Your task to perform on an android device: What's the weather going to be this weekend? Image 0: 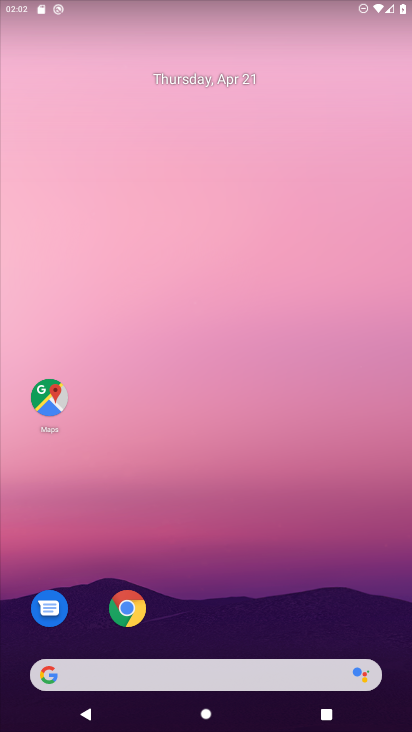
Step 0: drag from (219, 411) to (213, 207)
Your task to perform on an android device: What's the weather going to be this weekend? Image 1: 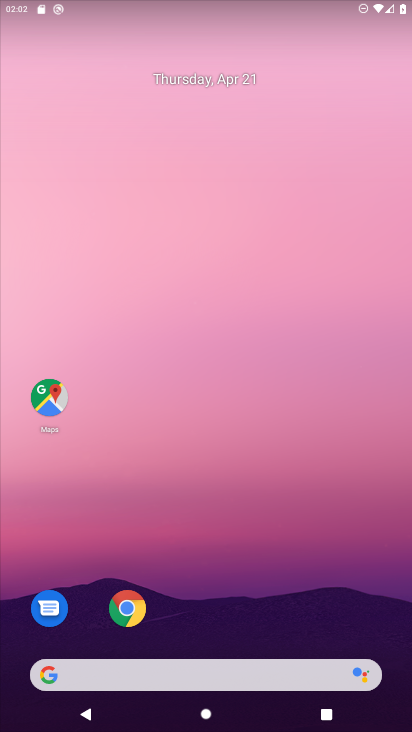
Step 1: drag from (254, 519) to (266, 355)
Your task to perform on an android device: What's the weather going to be this weekend? Image 2: 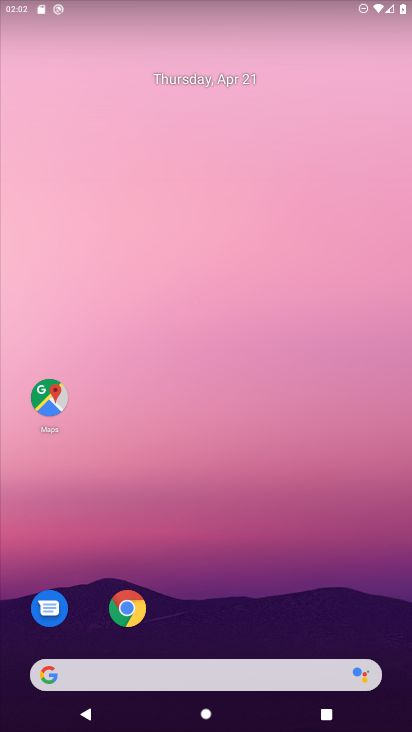
Step 2: drag from (217, 609) to (277, 230)
Your task to perform on an android device: What's the weather going to be this weekend? Image 3: 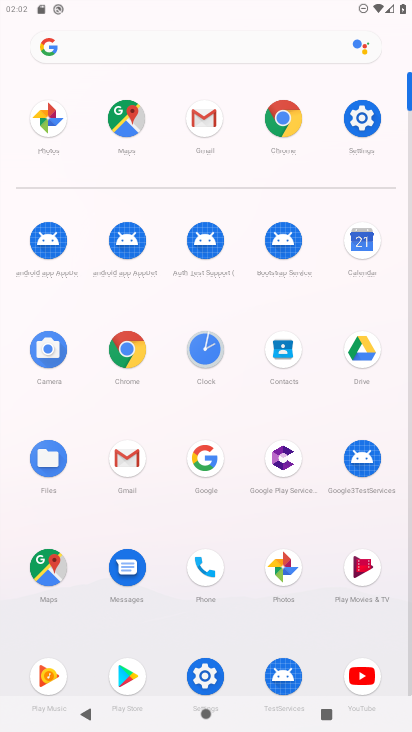
Step 3: click (123, 350)
Your task to perform on an android device: What's the weather going to be this weekend? Image 4: 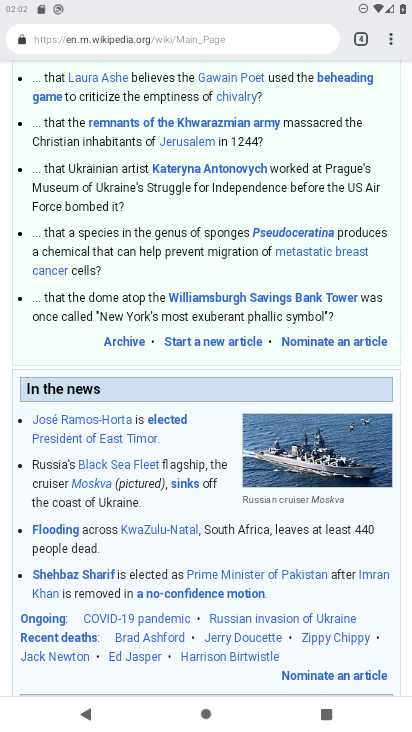
Step 4: click (388, 33)
Your task to perform on an android device: What's the weather going to be this weekend? Image 5: 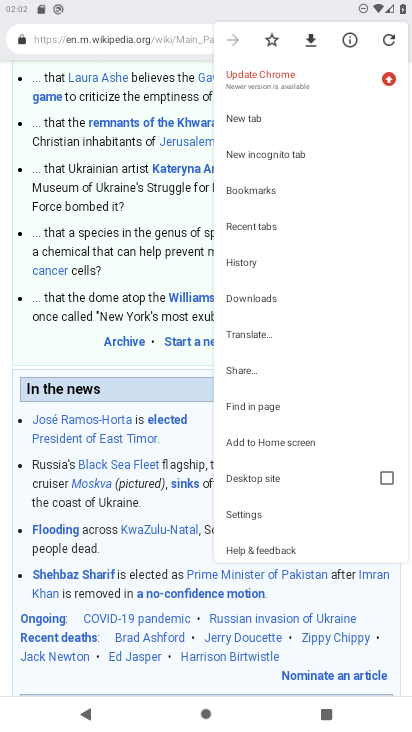
Step 5: click (270, 115)
Your task to perform on an android device: What's the weather going to be this weekend? Image 6: 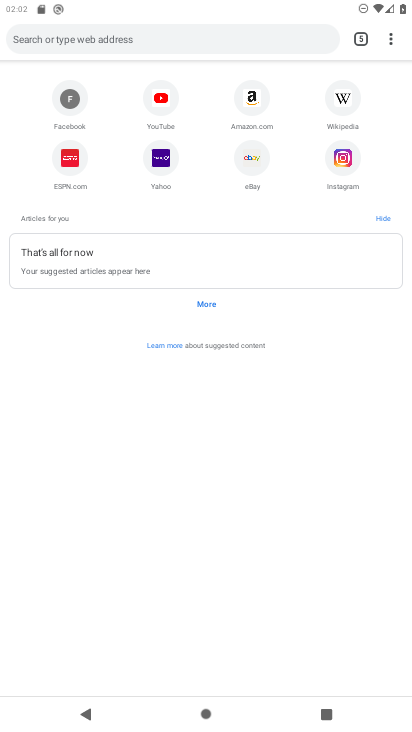
Step 6: click (240, 36)
Your task to perform on an android device: What's the weather going to be this weekend? Image 7: 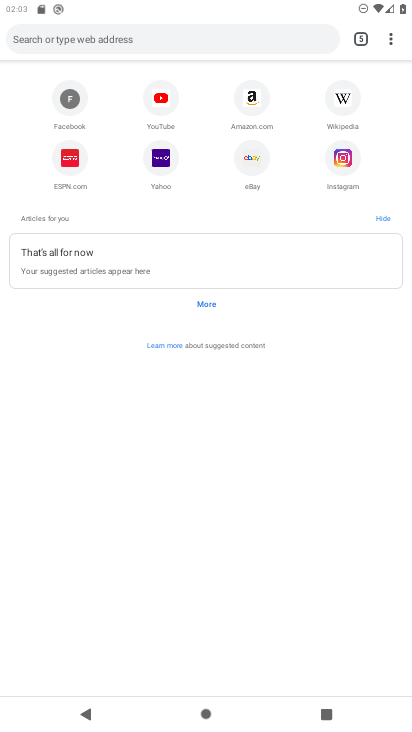
Step 7: type "What's the weather going to be this weekend?"
Your task to perform on an android device: What's the weather going to be this weekend? Image 8: 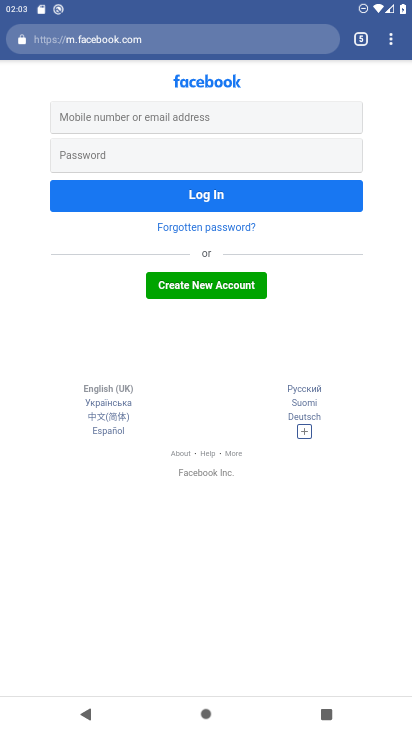
Step 8: click (390, 34)
Your task to perform on an android device: What's the weather going to be this weekend? Image 9: 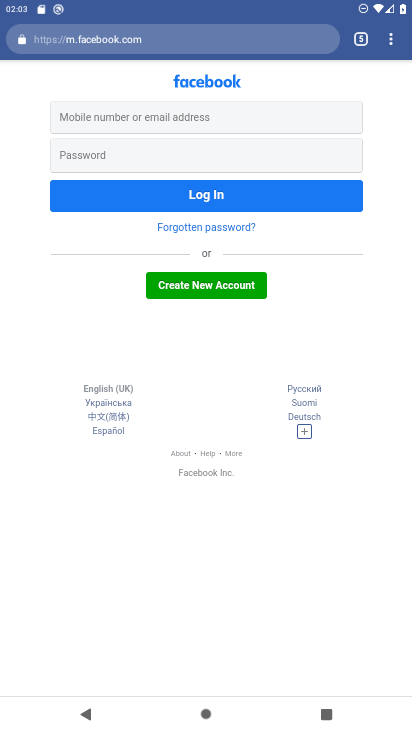
Step 9: click (383, 35)
Your task to perform on an android device: What's the weather going to be this weekend? Image 10: 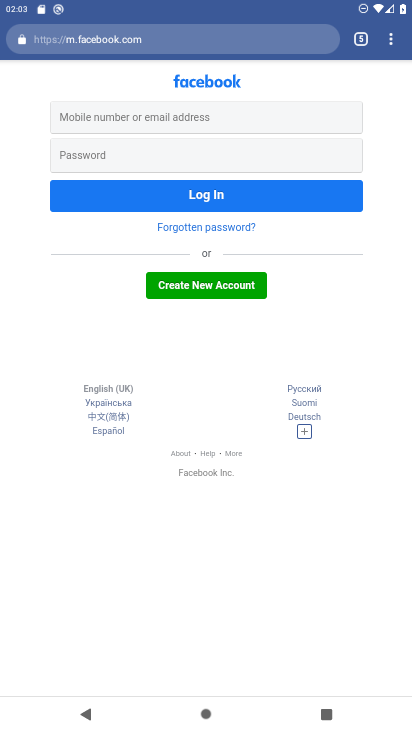
Step 10: click (382, 43)
Your task to perform on an android device: What's the weather going to be this weekend? Image 11: 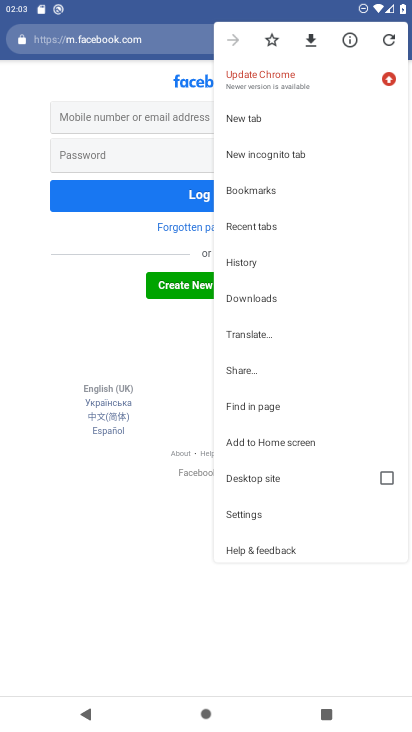
Step 11: click (304, 106)
Your task to perform on an android device: What's the weather going to be this weekend? Image 12: 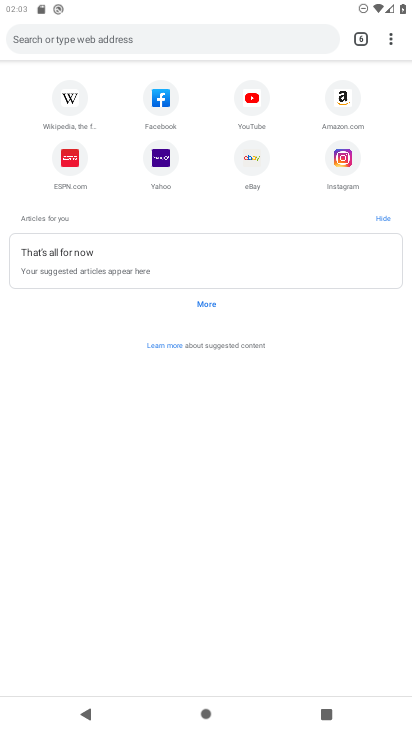
Step 12: click (163, 25)
Your task to perform on an android device: What's the weather going to be this weekend? Image 13: 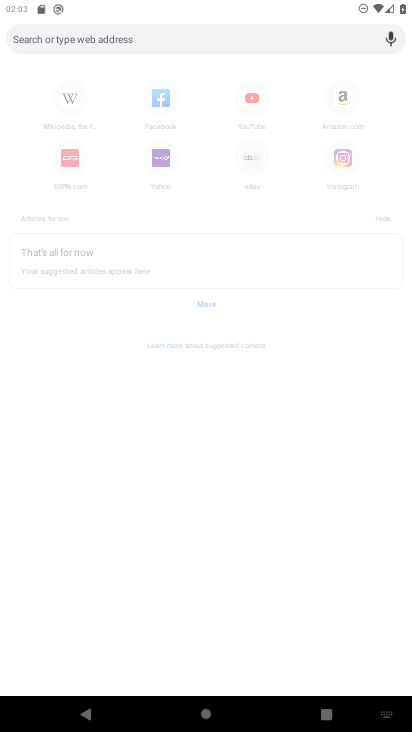
Step 13: type "What's the weather going to be this weekend?"
Your task to perform on an android device: What's the weather going to be this weekend? Image 14: 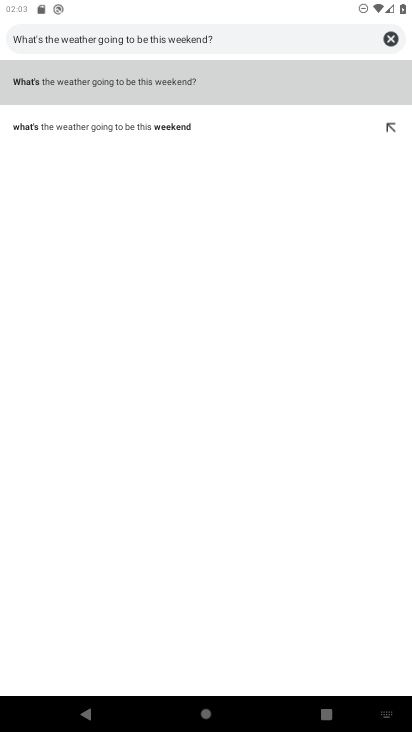
Step 14: click (209, 73)
Your task to perform on an android device: What's the weather going to be this weekend? Image 15: 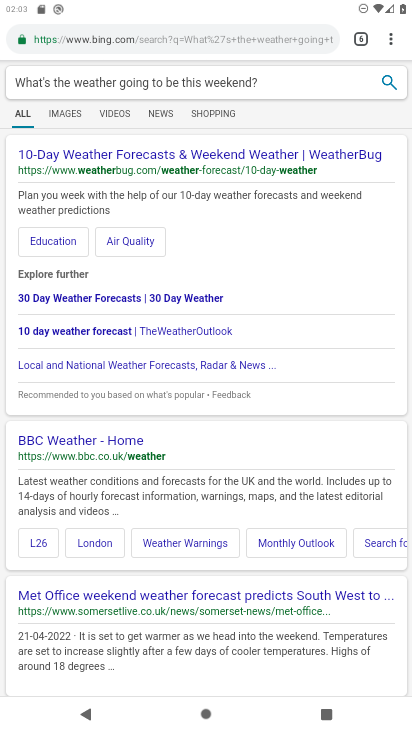
Step 15: click (261, 158)
Your task to perform on an android device: What's the weather going to be this weekend? Image 16: 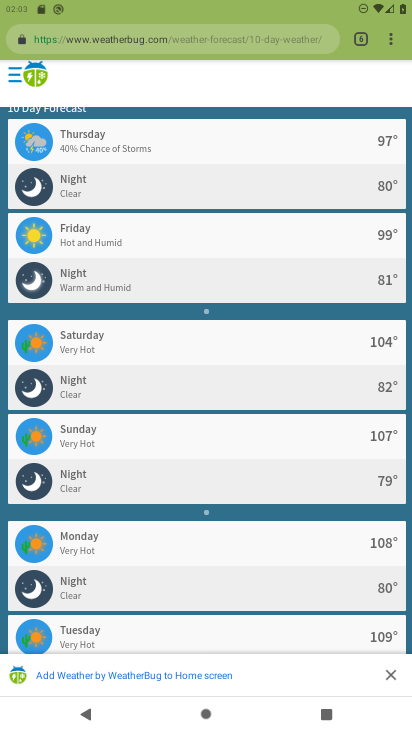
Step 16: task complete